Your task to perform on an android device: Go to privacy settings Image 0: 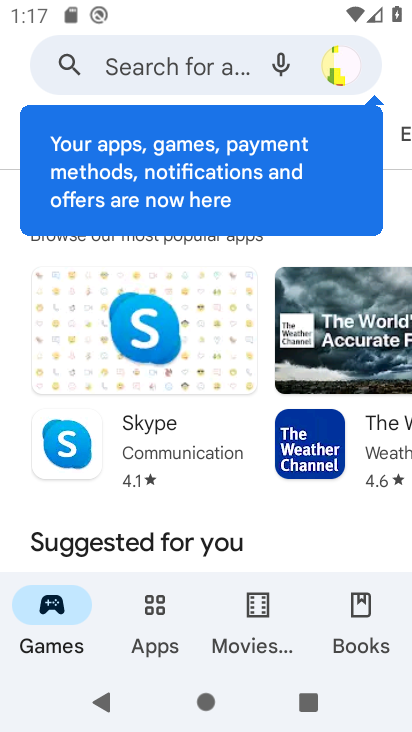
Step 0: press home button
Your task to perform on an android device: Go to privacy settings Image 1: 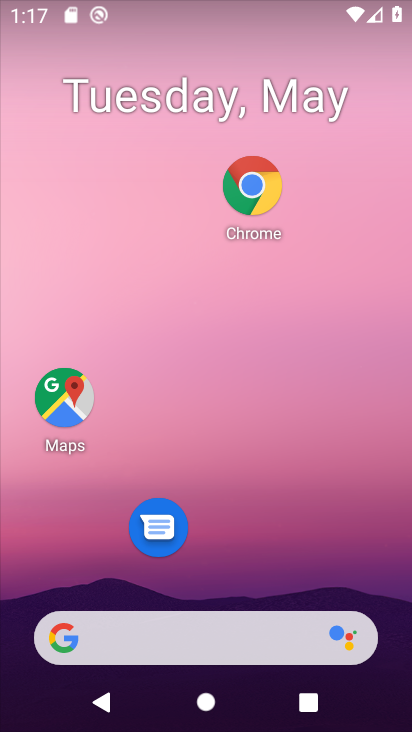
Step 1: drag from (241, 387) to (147, 38)
Your task to perform on an android device: Go to privacy settings Image 2: 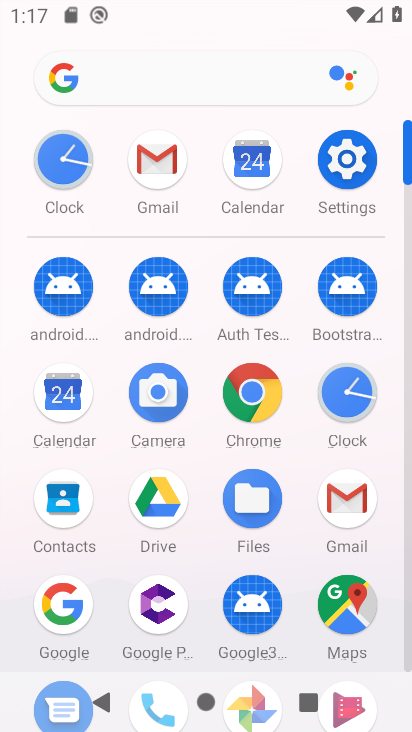
Step 2: click (346, 158)
Your task to perform on an android device: Go to privacy settings Image 3: 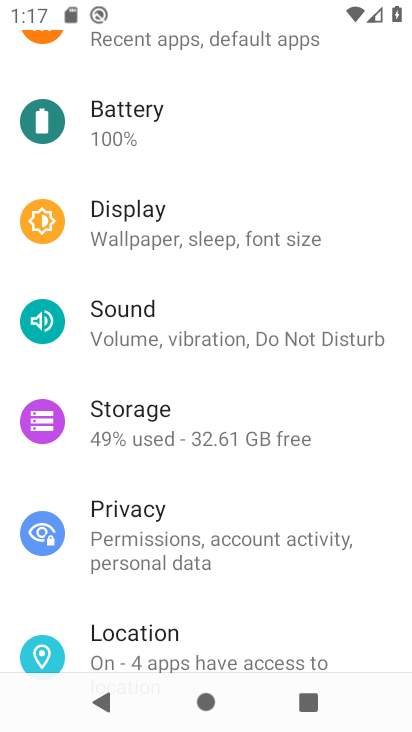
Step 3: click (134, 513)
Your task to perform on an android device: Go to privacy settings Image 4: 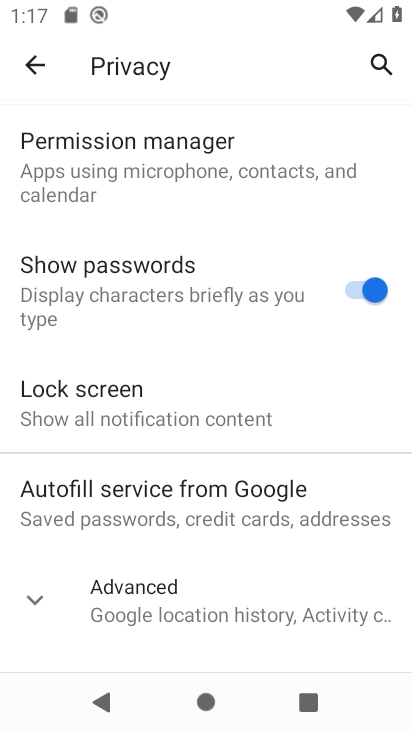
Step 4: task complete